Your task to perform on an android device: Is it going to rain tomorrow? Image 0: 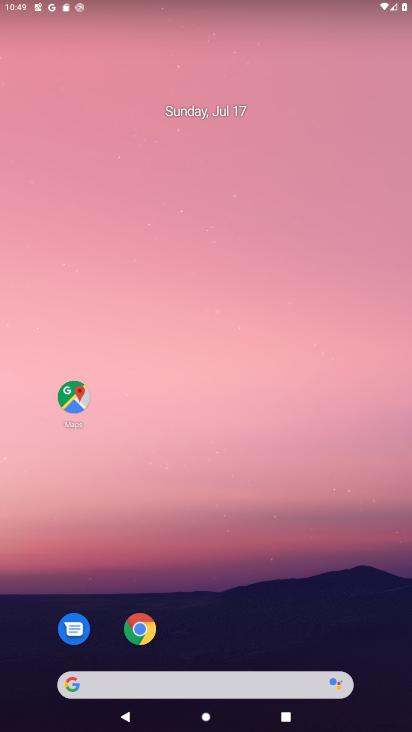
Step 0: drag from (171, 682) to (276, 78)
Your task to perform on an android device: Is it going to rain tomorrow? Image 1: 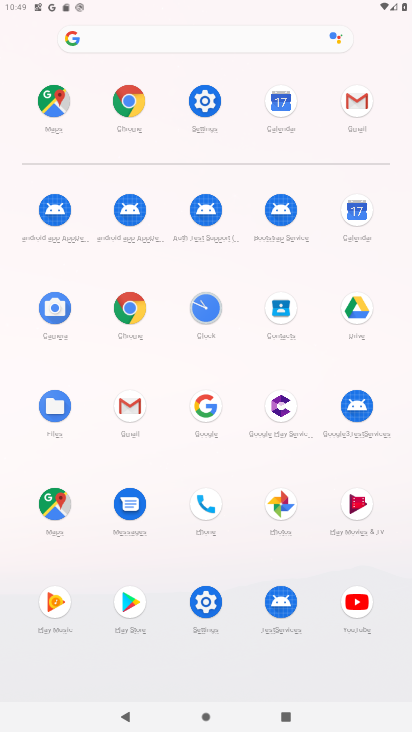
Step 1: click (202, 403)
Your task to perform on an android device: Is it going to rain tomorrow? Image 2: 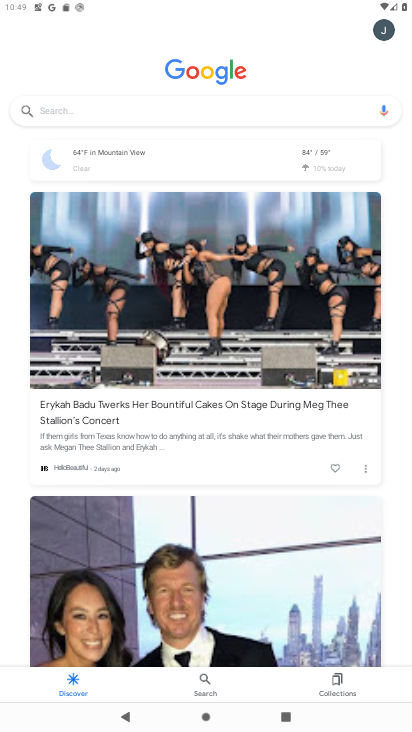
Step 2: click (309, 142)
Your task to perform on an android device: Is it going to rain tomorrow? Image 3: 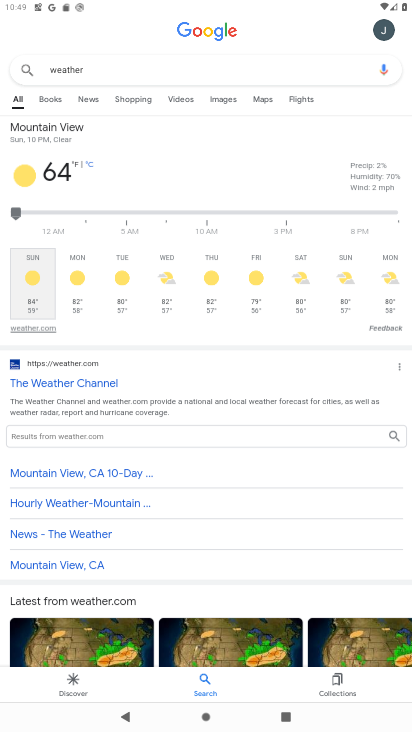
Step 3: click (80, 290)
Your task to perform on an android device: Is it going to rain tomorrow? Image 4: 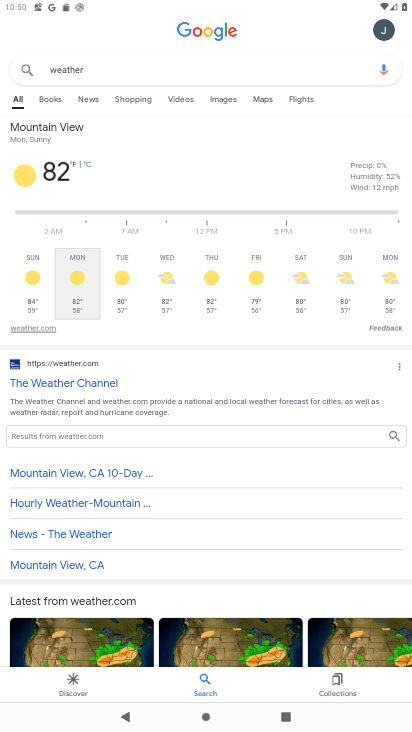
Step 4: task complete